Your task to perform on an android device: toggle show notifications on the lock screen Image 0: 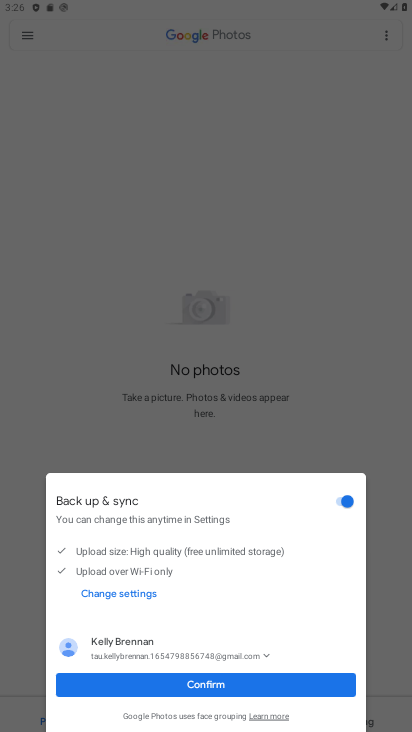
Step 0: press home button
Your task to perform on an android device: toggle show notifications on the lock screen Image 1: 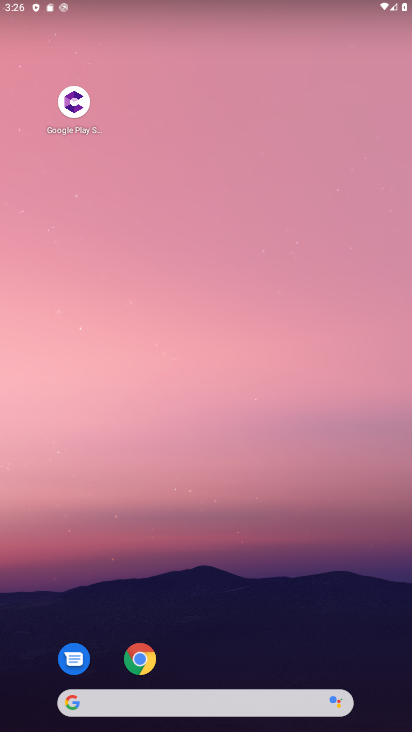
Step 1: drag from (291, 613) to (315, 177)
Your task to perform on an android device: toggle show notifications on the lock screen Image 2: 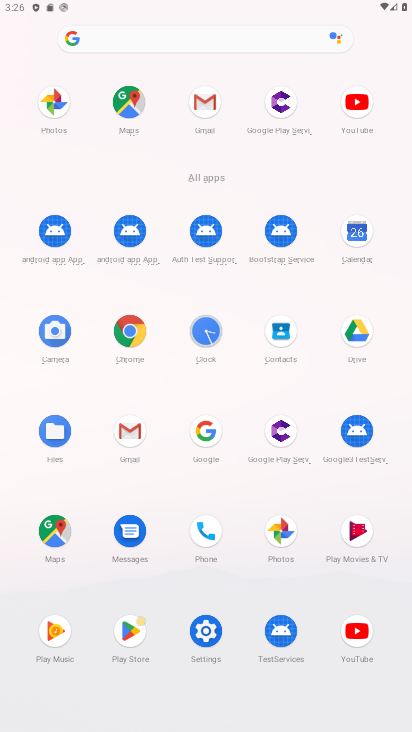
Step 2: click (206, 629)
Your task to perform on an android device: toggle show notifications on the lock screen Image 3: 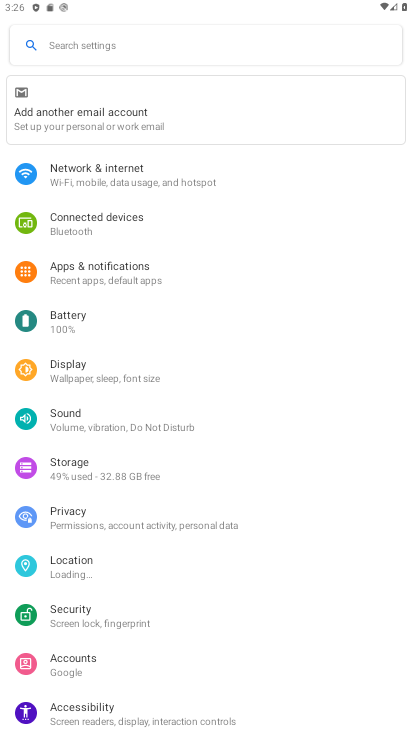
Step 3: click (176, 277)
Your task to perform on an android device: toggle show notifications on the lock screen Image 4: 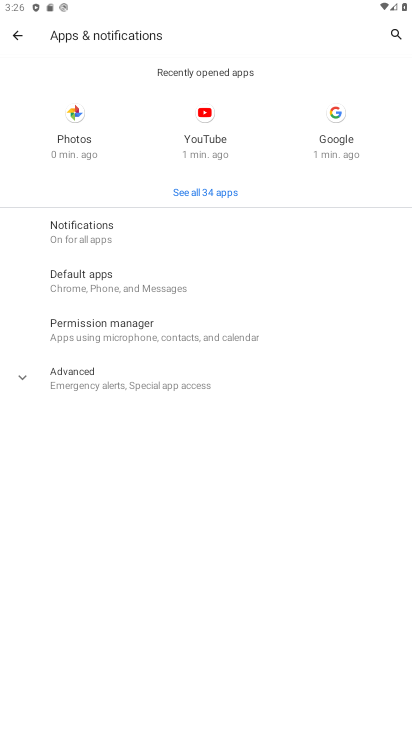
Step 4: click (90, 220)
Your task to perform on an android device: toggle show notifications on the lock screen Image 5: 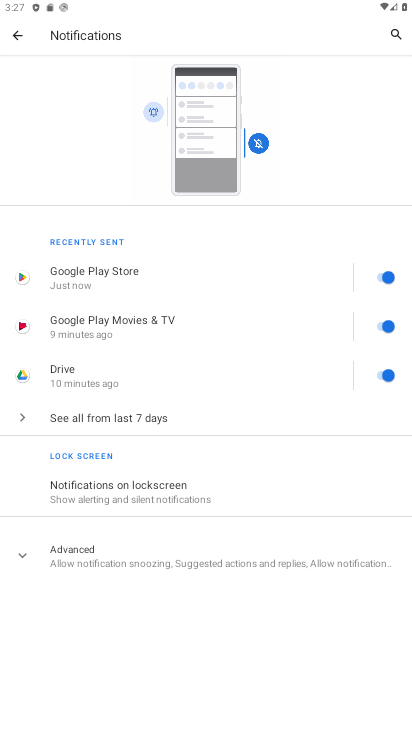
Step 5: click (88, 493)
Your task to perform on an android device: toggle show notifications on the lock screen Image 6: 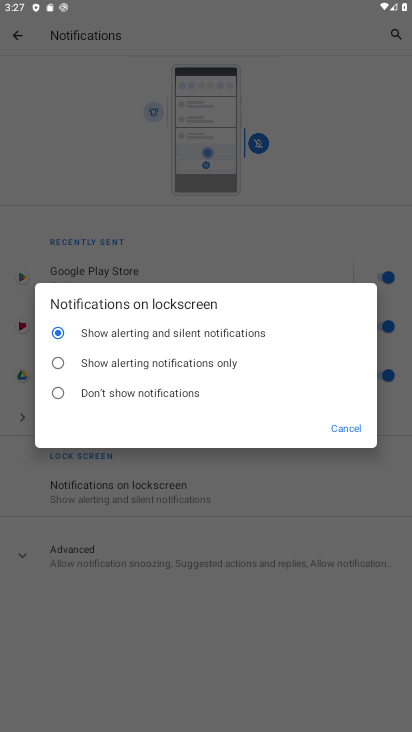
Step 6: click (140, 360)
Your task to perform on an android device: toggle show notifications on the lock screen Image 7: 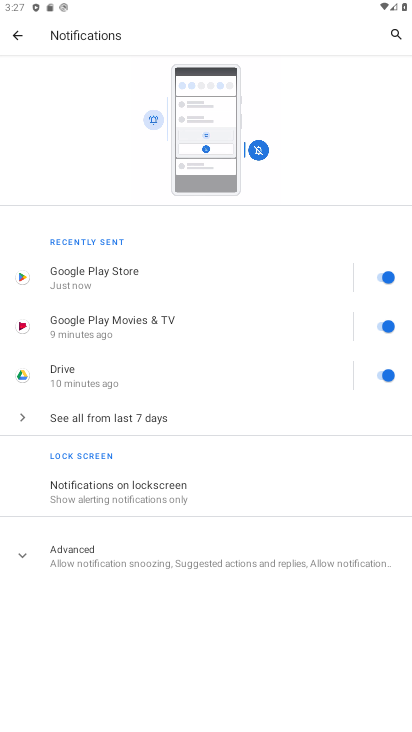
Step 7: task complete